Your task to perform on an android device: Go to privacy settings Image 0: 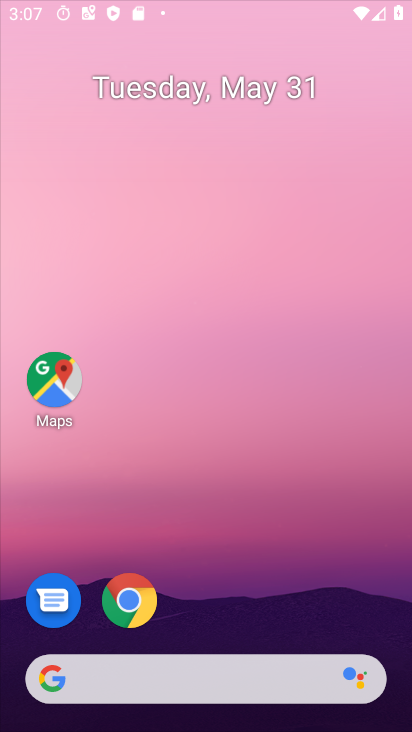
Step 0: press home button
Your task to perform on an android device: Go to privacy settings Image 1: 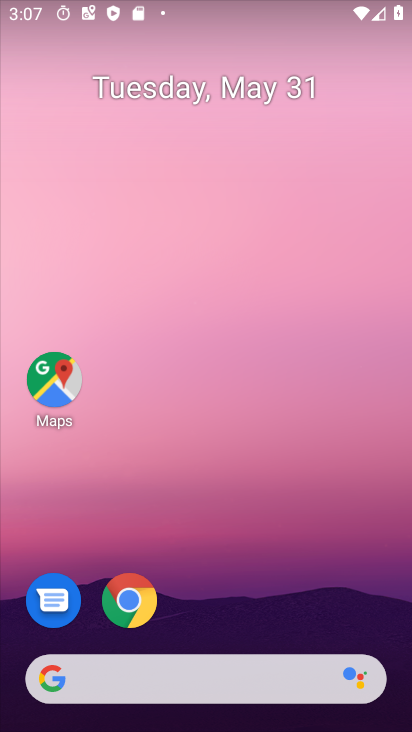
Step 1: drag from (219, 635) to (223, 73)
Your task to perform on an android device: Go to privacy settings Image 2: 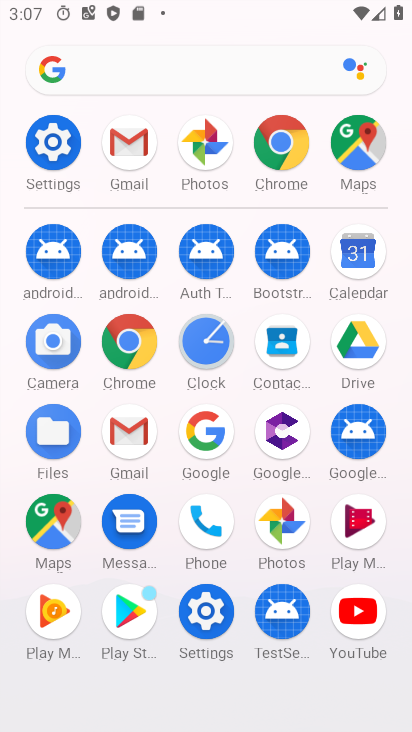
Step 2: click (203, 604)
Your task to perform on an android device: Go to privacy settings Image 3: 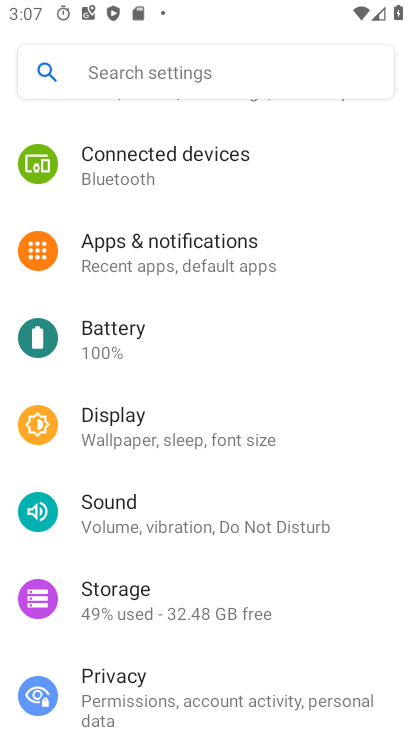
Step 3: click (163, 677)
Your task to perform on an android device: Go to privacy settings Image 4: 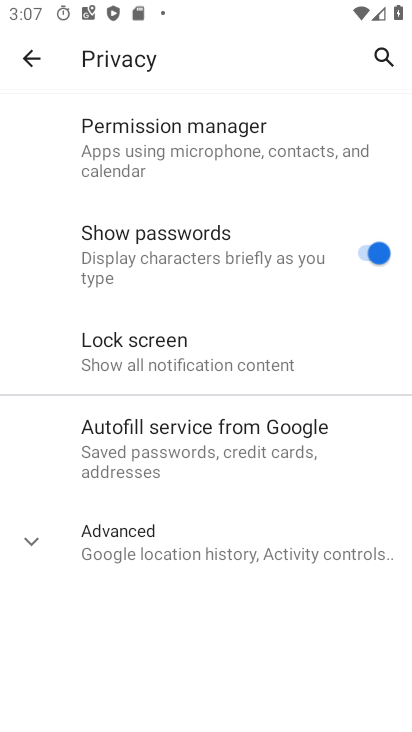
Step 4: click (37, 538)
Your task to perform on an android device: Go to privacy settings Image 5: 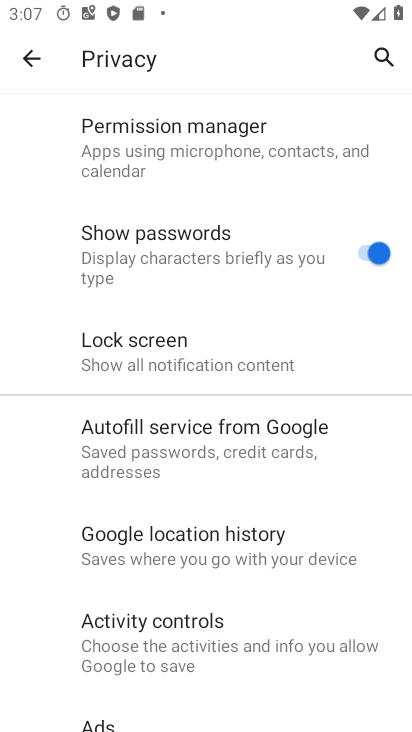
Step 5: task complete